Your task to perform on an android device: see sites visited before in the chrome app Image 0: 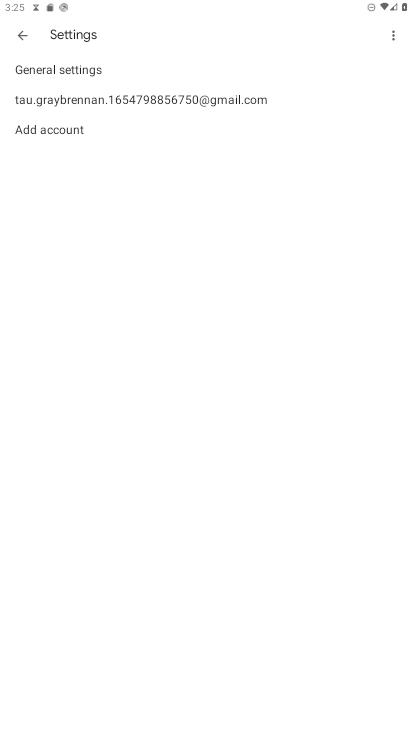
Step 0: press home button
Your task to perform on an android device: see sites visited before in the chrome app Image 1: 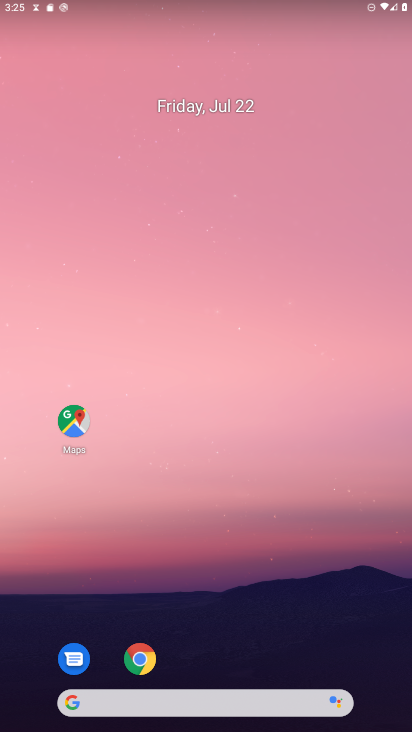
Step 1: drag from (264, 634) to (300, 7)
Your task to perform on an android device: see sites visited before in the chrome app Image 2: 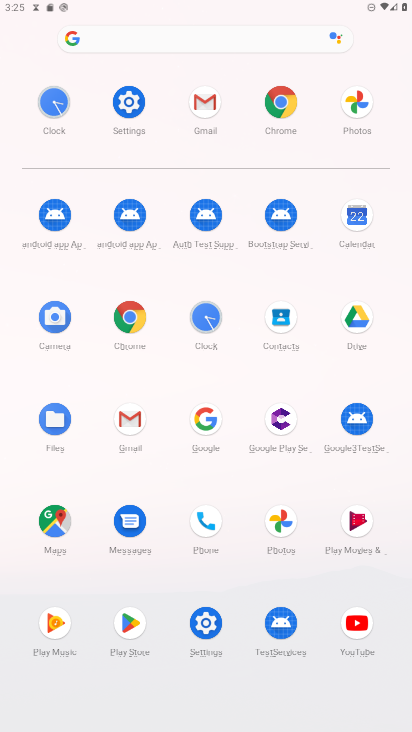
Step 2: click (293, 118)
Your task to perform on an android device: see sites visited before in the chrome app Image 3: 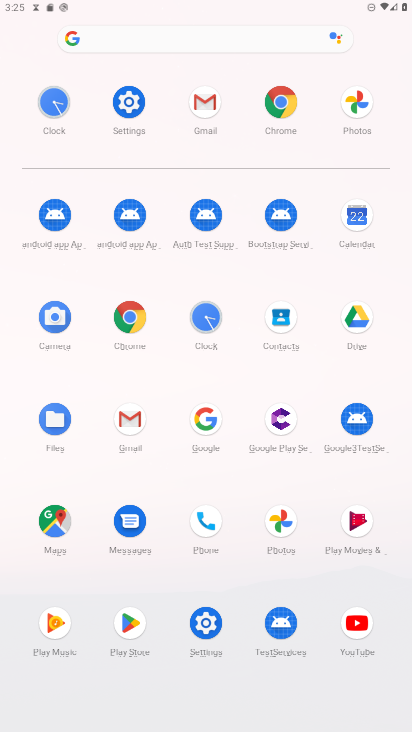
Step 3: click (282, 93)
Your task to perform on an android device: see sites visited before in the chrome app Image 4: 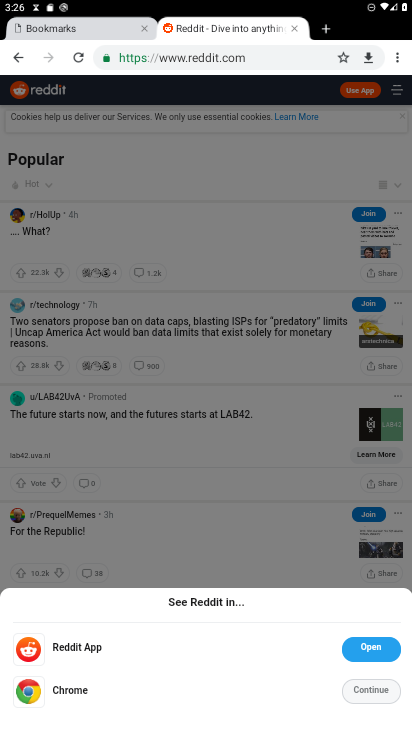
Step 4: task complete